Your task to perform on an android device: turn on airplane mode Image 0: 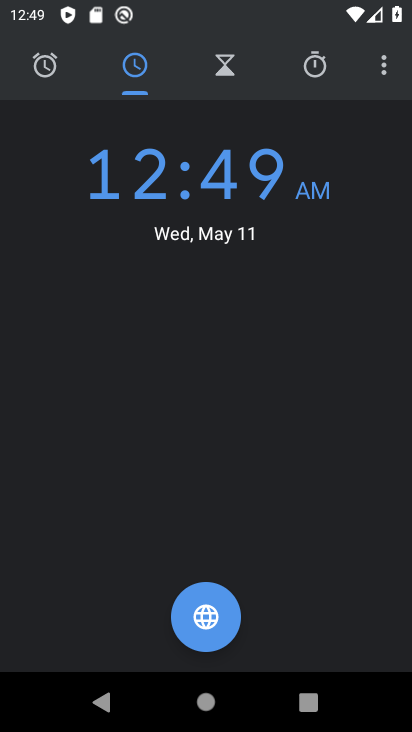
Step 0: press home button
Your task to perform on an android device: turn on airplane mode Image 1: 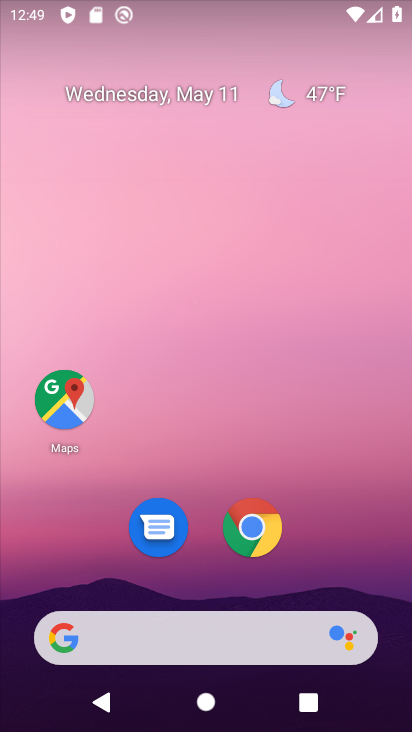
Step 1: drag from (163, 552) to (271, 77)
Your task to perform on an android device: turn on airplane mode Image 2: 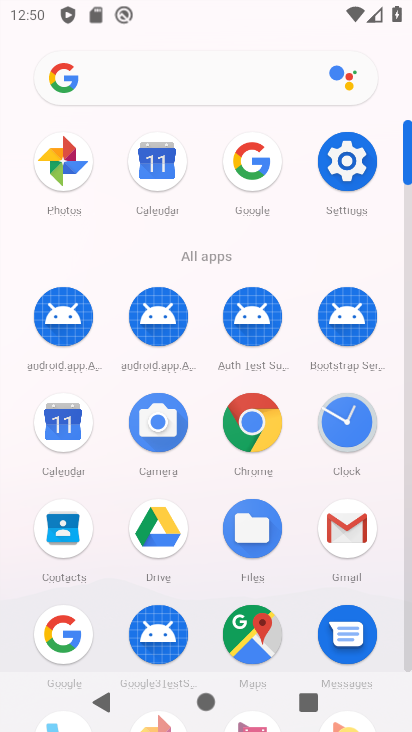
Step 2: click (354, 157)
Your task to perform on an android device: turn on airplane mode Image 3: 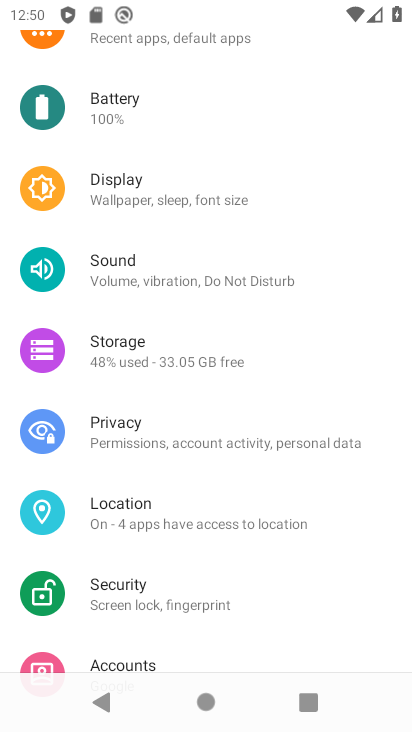
Step 3: drag from (349, 129) to (156, 563)
Your task to perform on an android device: turn on airplane mode Image 4: 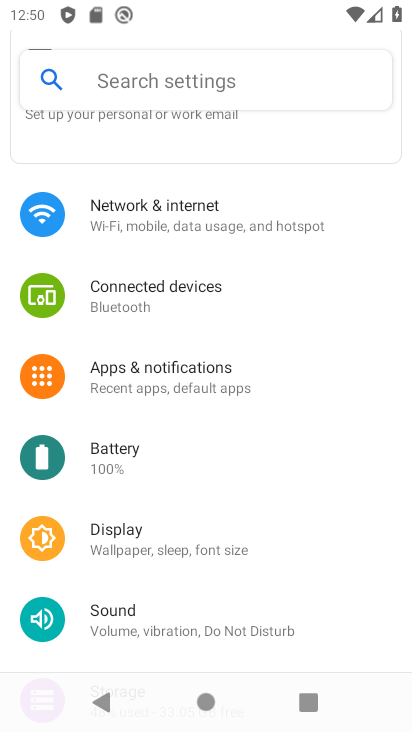
Step 4: drag from (199, 255) to (156, 534)
Your task to perform on an android device: turn on airplane mode Image 5: 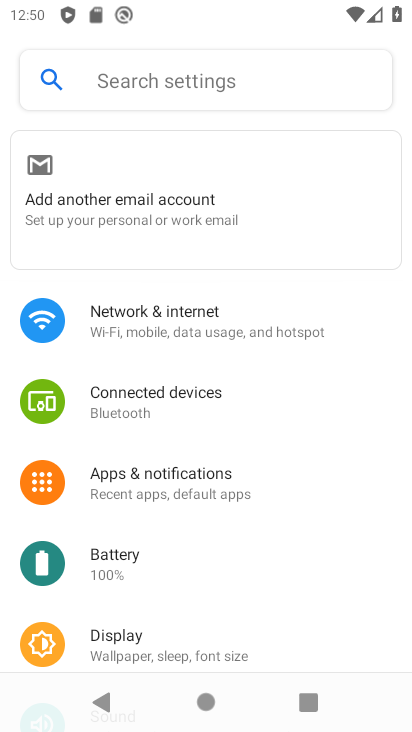
Step 5: drag from (159, 500) to (328, 124)
Your task to perform on an android device: turn on airplane mode Image 6: 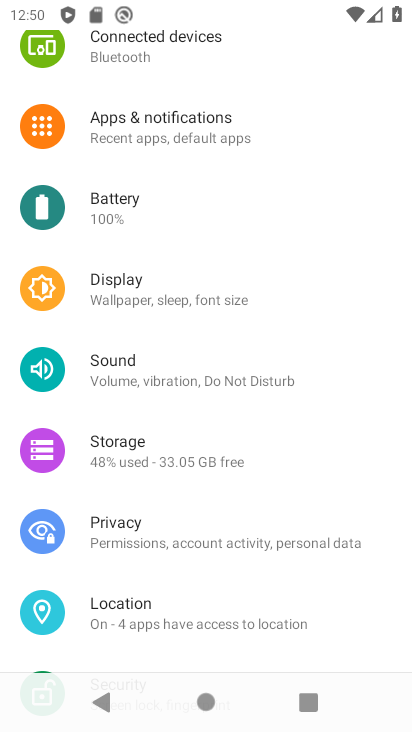
Step 6: drag from (266, 399) to (385, 59)
Your task to perform on an android device: turn on airplane mode Image 7: 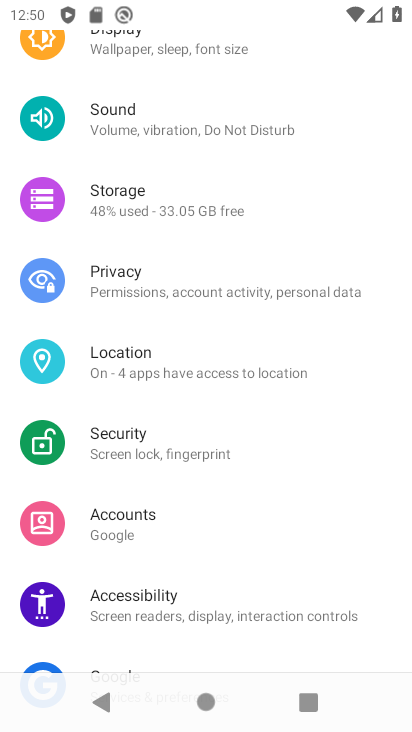
Step 7: drag from (212, 111) to (0, 608)
Your task to perform on an android device: turn on airplane mode Image 8: 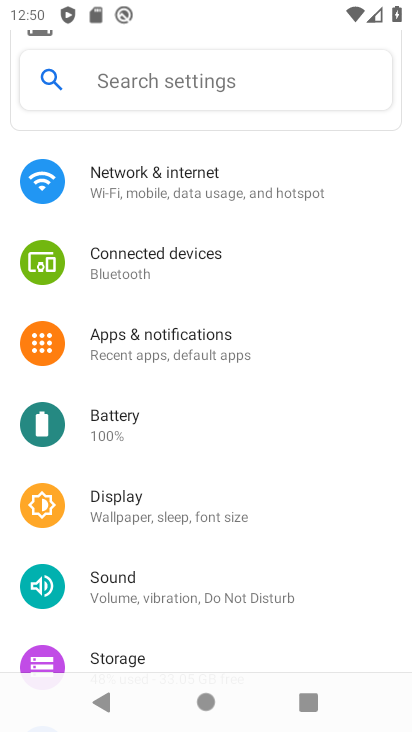
Step 8: click (192, 82)
Your task to perform on an android device: turn on airplane mode Image 9: 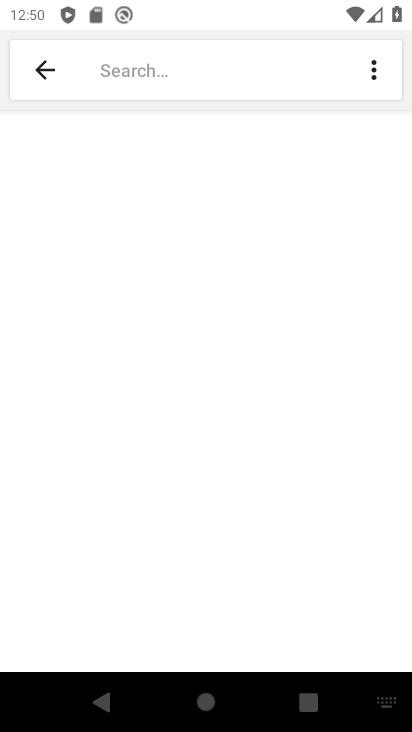
Step 9: type "airplane mode"
Your task to perform on an android device: turn on airplane mode Image 10: 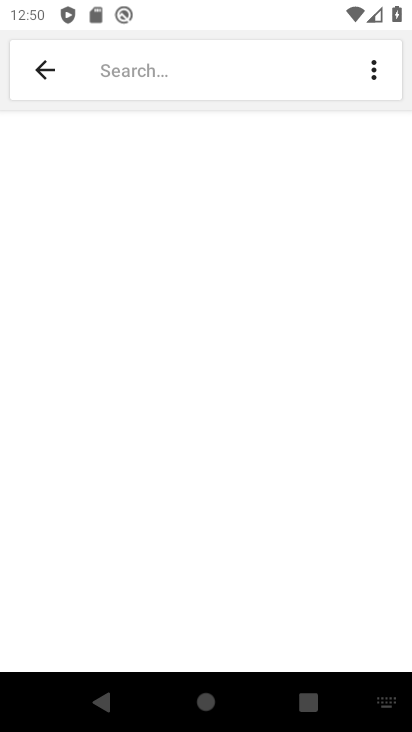
Step 10: click (108, 65)
Your task to perform on an android device: turn on airplane mode Image 11: 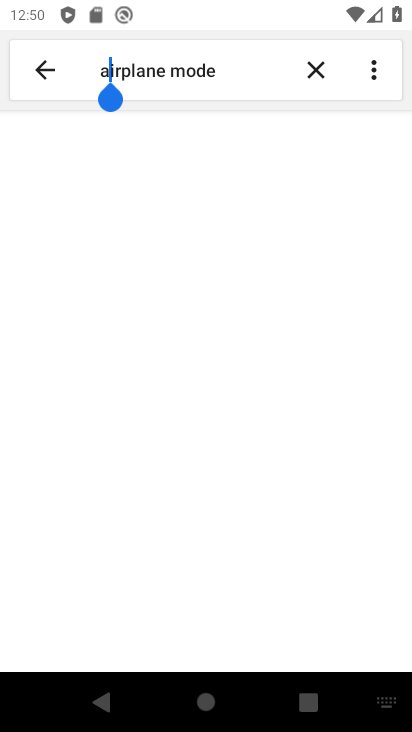
Step 11: click (225, 76)
Your task to perform on an android device: turn on airplane mode Image 12: 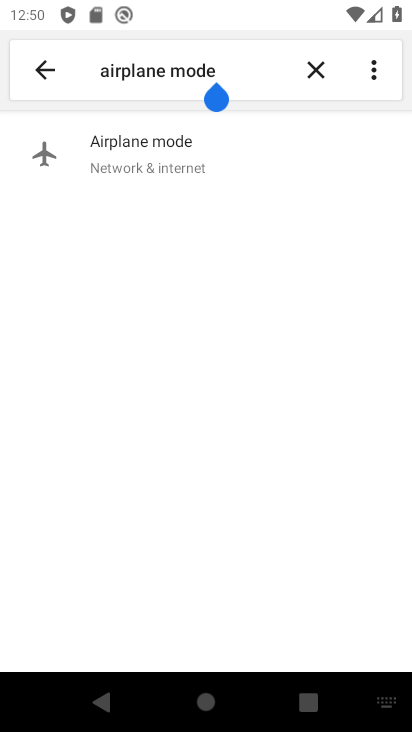
Step 12: click (181, 137)
Your task to perform on an android device: turn on airplane mode Image 13: 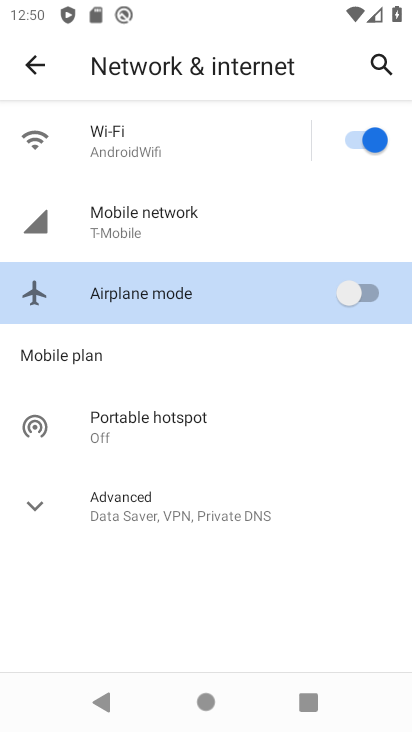
Step 13: drag from (121, 571) to (144, 300)
Your task to perform on an android device: turn on airplane mode Image 14: 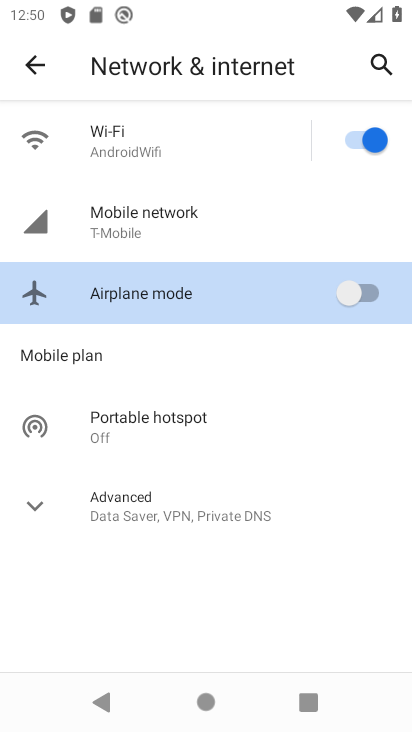
Step 14: click (369, 296)
Your task to perform on an android device: turn on airplane mode Image 15: 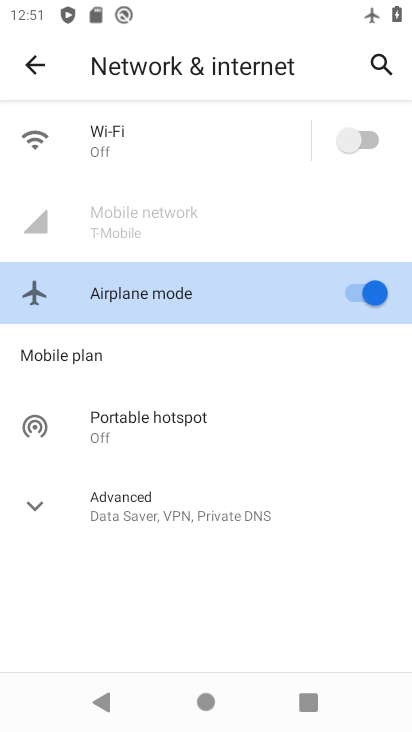
Step 15: task complete